Your task to perform on an android device: Open calendar and show me the fourth week of next month Image 0: 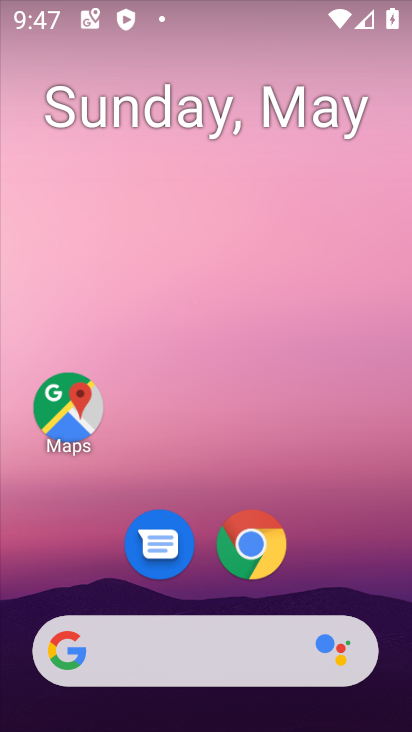
Step 0: drag from (355, 562) to (249, 2)
Your task to perform on an android device: Open calendar and show me the fourth week of next month Image 1: 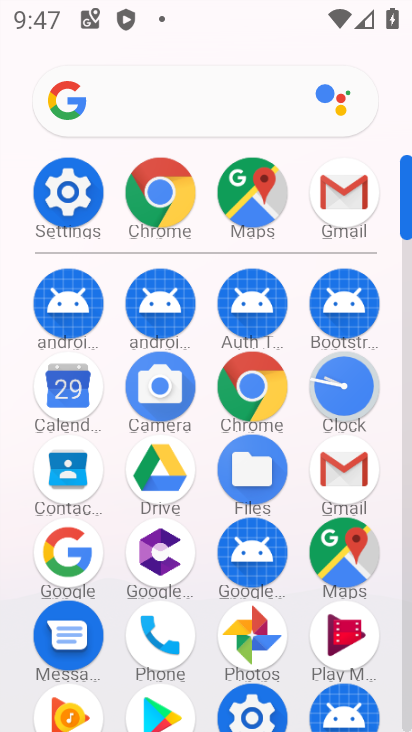
Step 1: click (63, 413)
Your task to perform on an android device: Open calendar and show me the fourth week of next month Image 2: 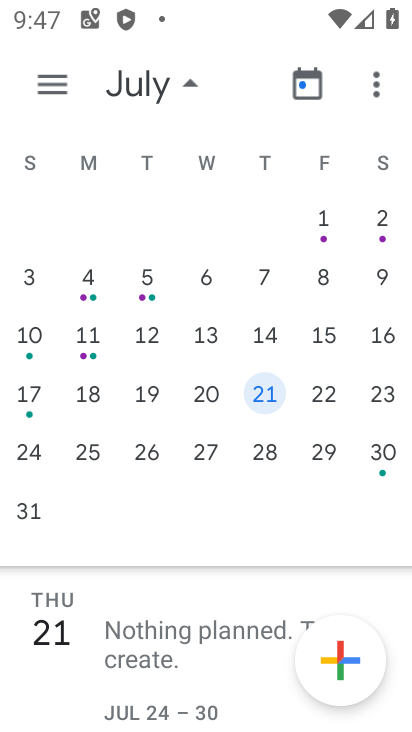
Step 2: drag from (373, 386) to (13, 307)
Your task to perform on an android device: Open calendar and show me the fourth week of next month Image 3: 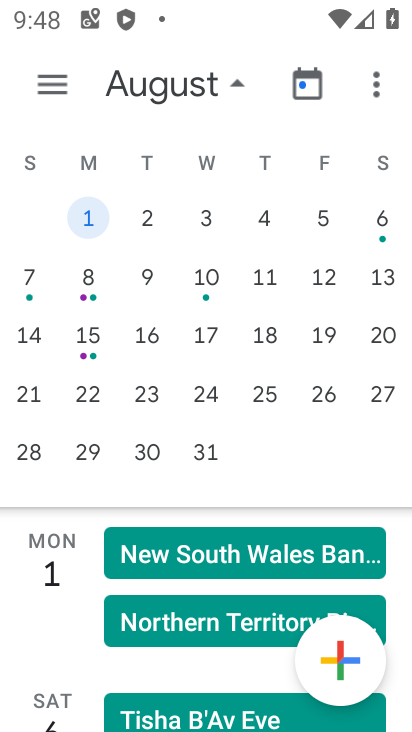
Step 3: click (43, 459)
Your task to perform on an android device: Open calendar and show me the fourth week of next month Image 4: 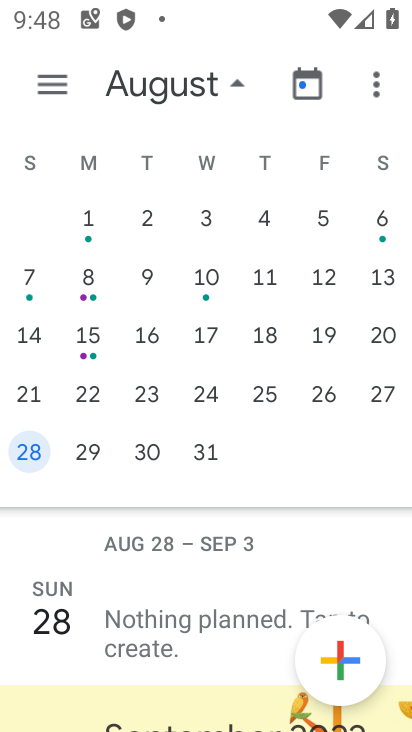
Step 4: task complete